Your task to perform on an android device: uninstall "Microsoft Authenticator" Image 0: 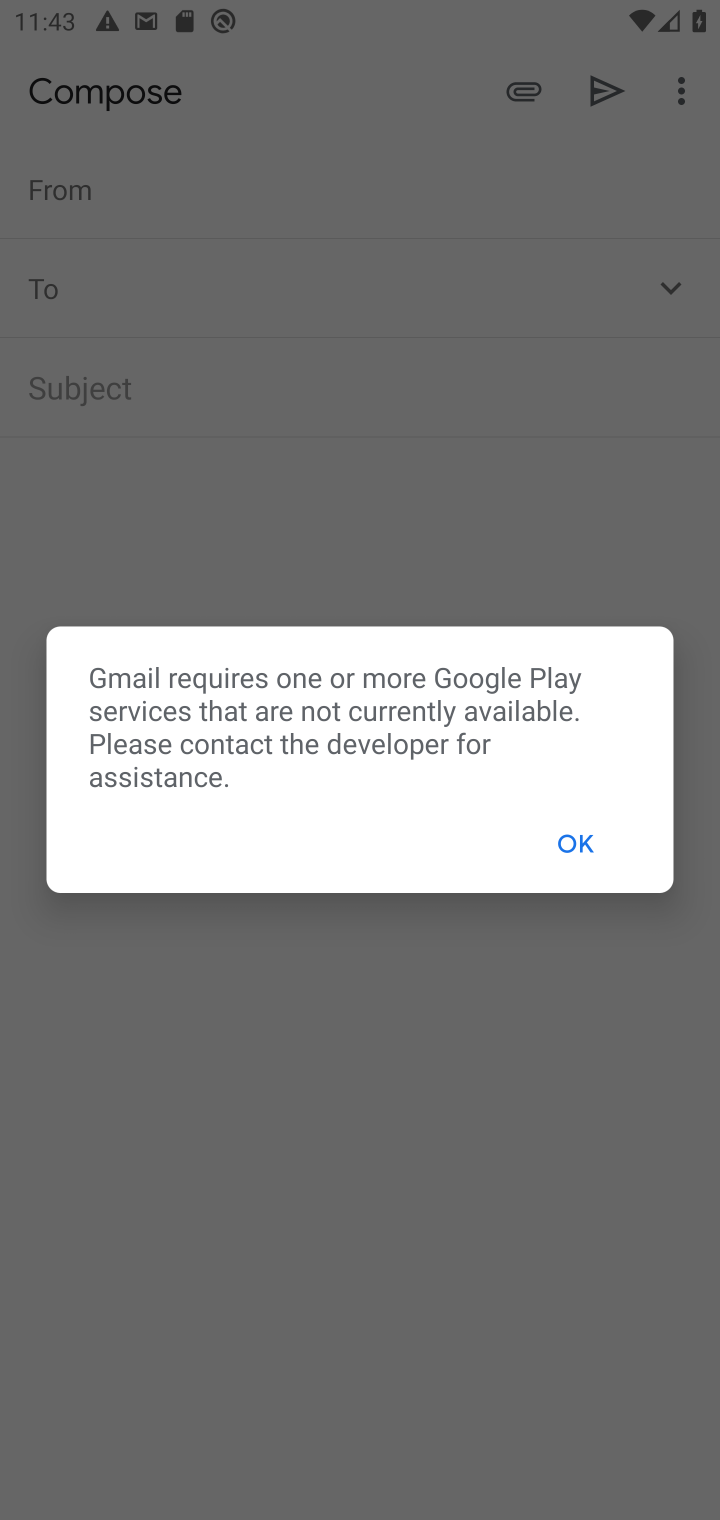
Step 0: press home button
Your task to perform on an android device: uninstall "Microsoft Authenticator" Image 1: 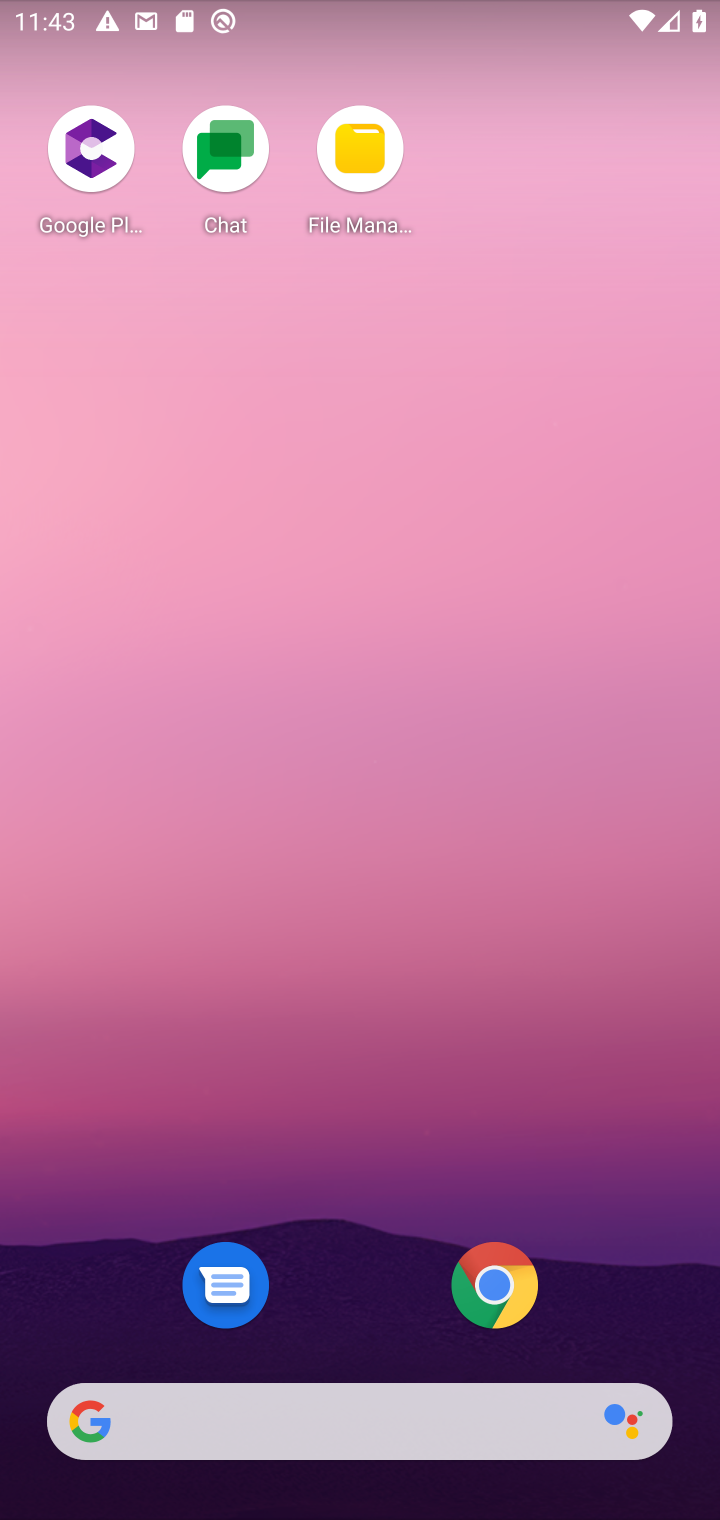
Step 1: press home button
Your task to perform on an android device: uninstall "Microsoft Authenticator" Image 2: 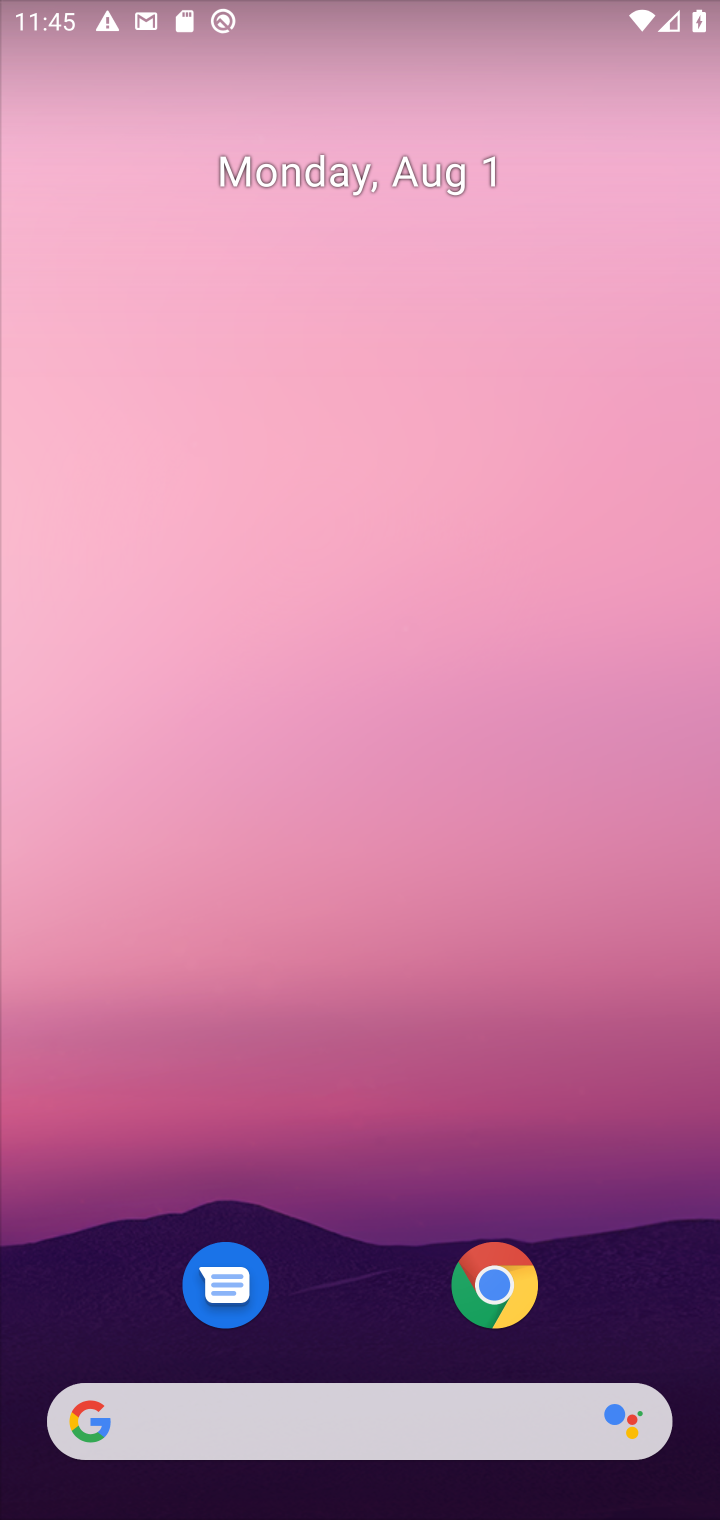
Step 2: drag from (582, 1028) to (469, 27)
Your task to perform on an android device: uninstall "Microsoft Authenticator" Image 3: 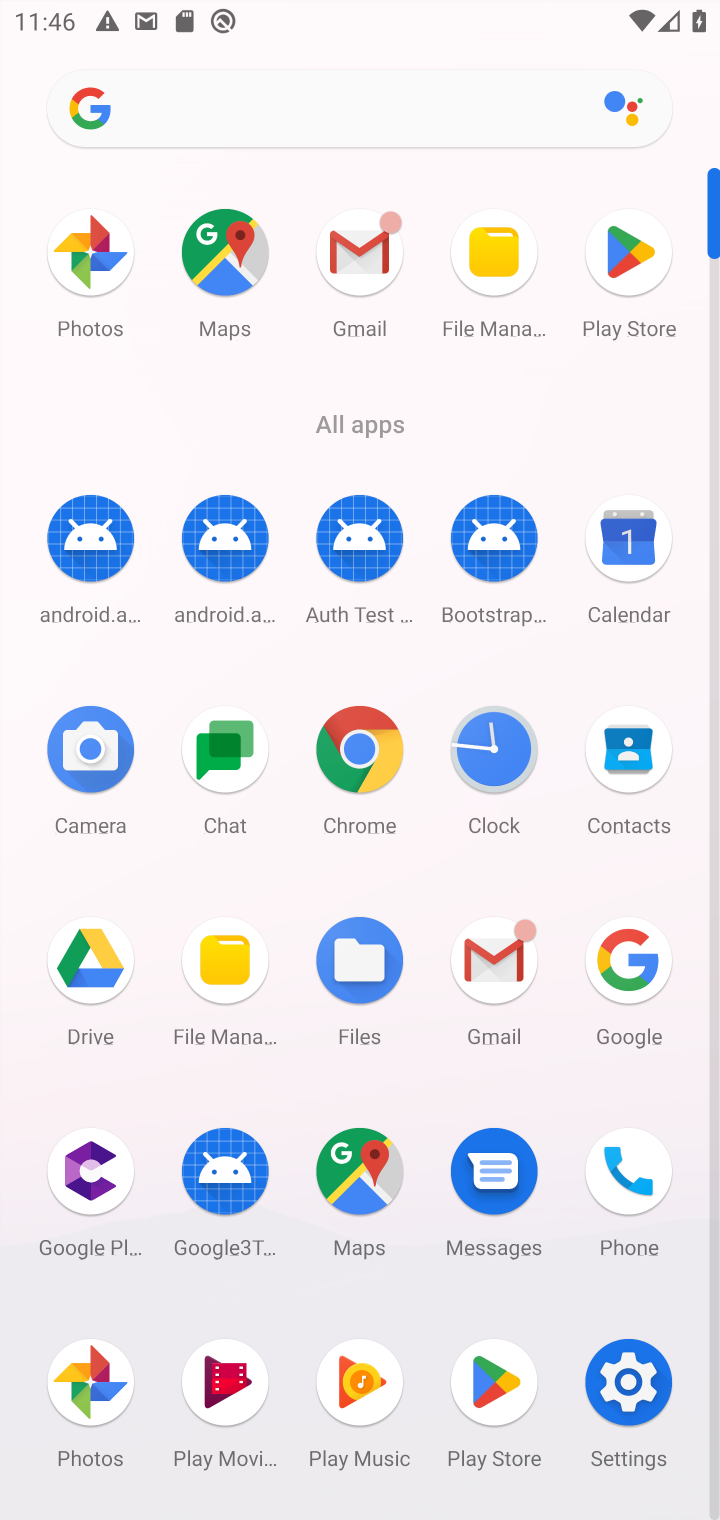
Step 3: click (454, 1417)
Your task to perform on an android device: uninstall "Microsoft Authenticator" Image 4: 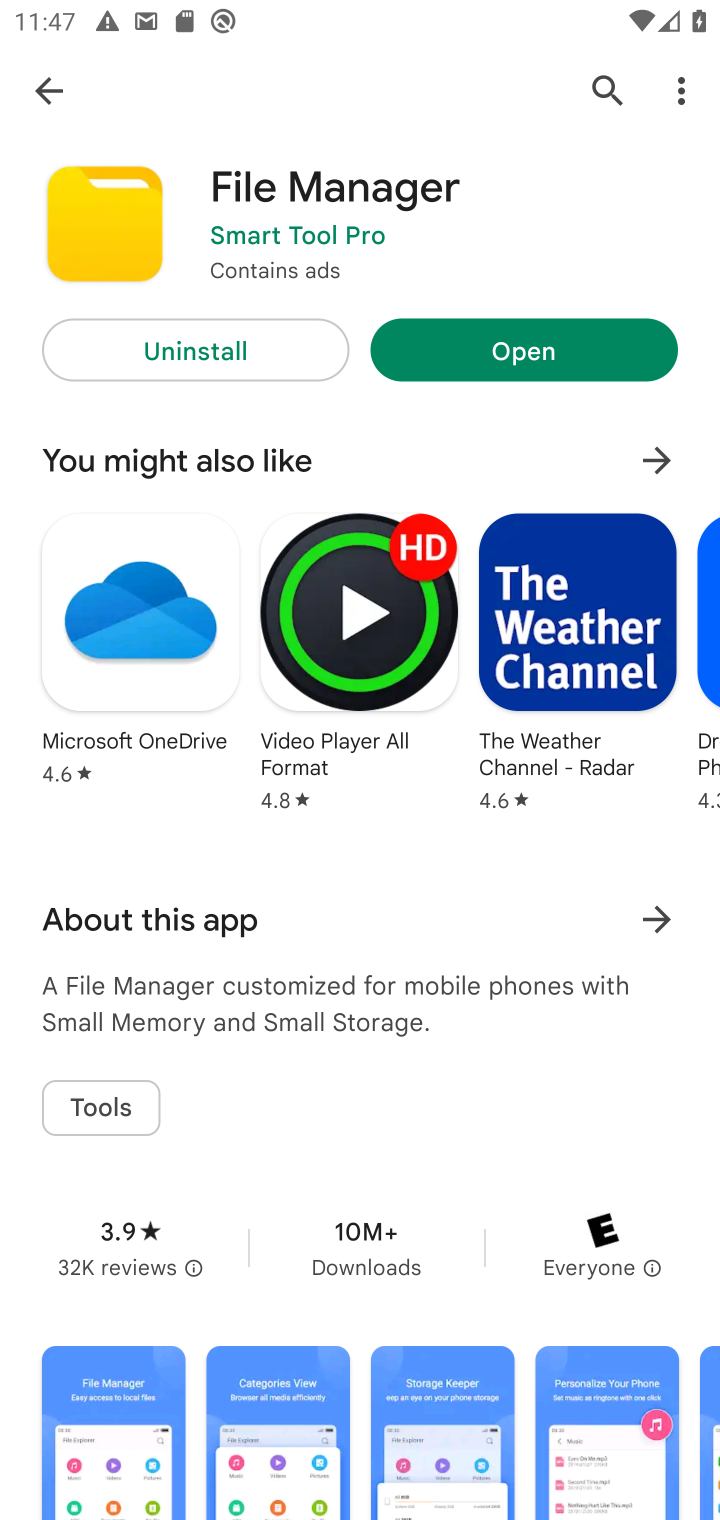
Step 4: click (627, 93)
Your task to perform on an android device: uninstall "Microsoft Authenticator" Image 5: 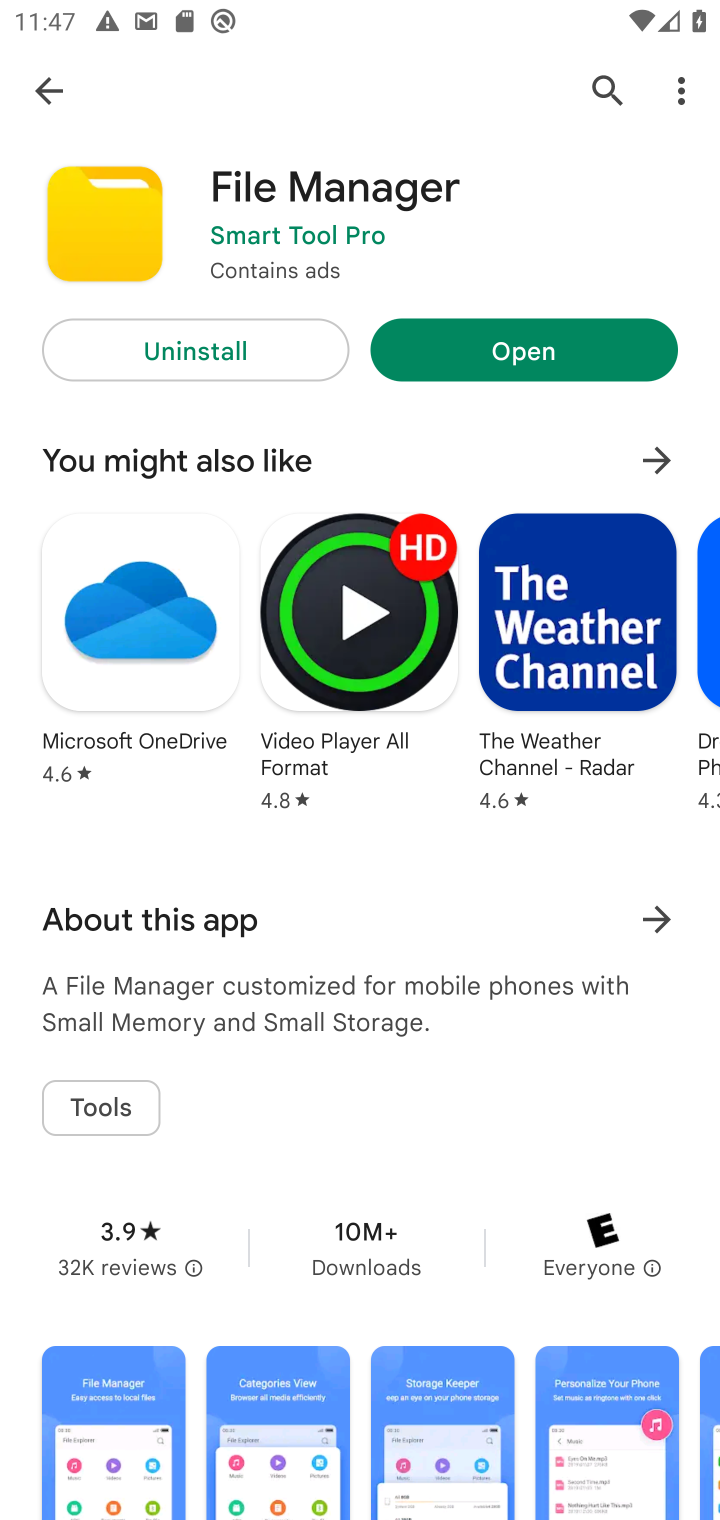
Step 5: click (602, 95)
Your task to perform on an android device: uninstall "Microsoft Authenticator" Image 6: 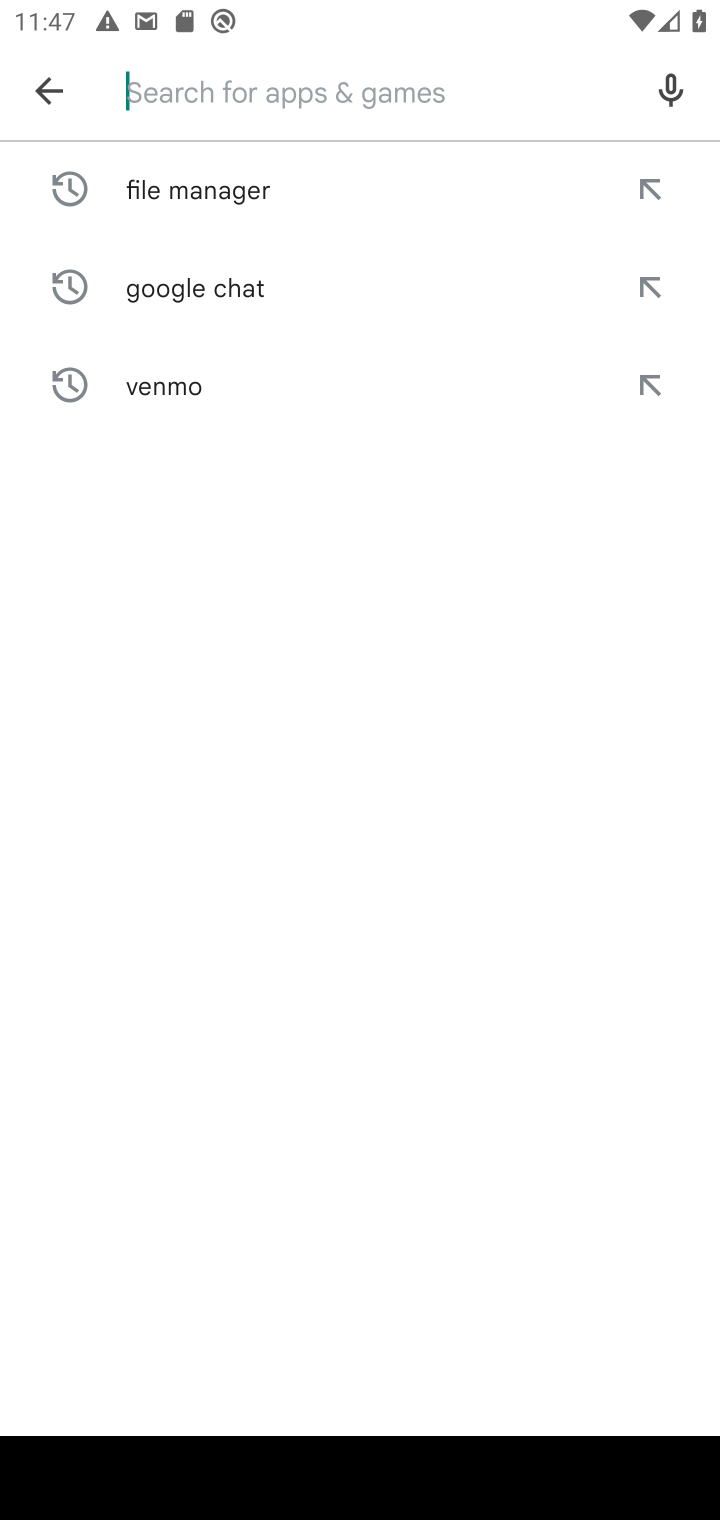
Step 6: type "Microsoft Authenticator""
Your task to perform on an android device: uninstall "Microsoft Authenticator" Image 7: 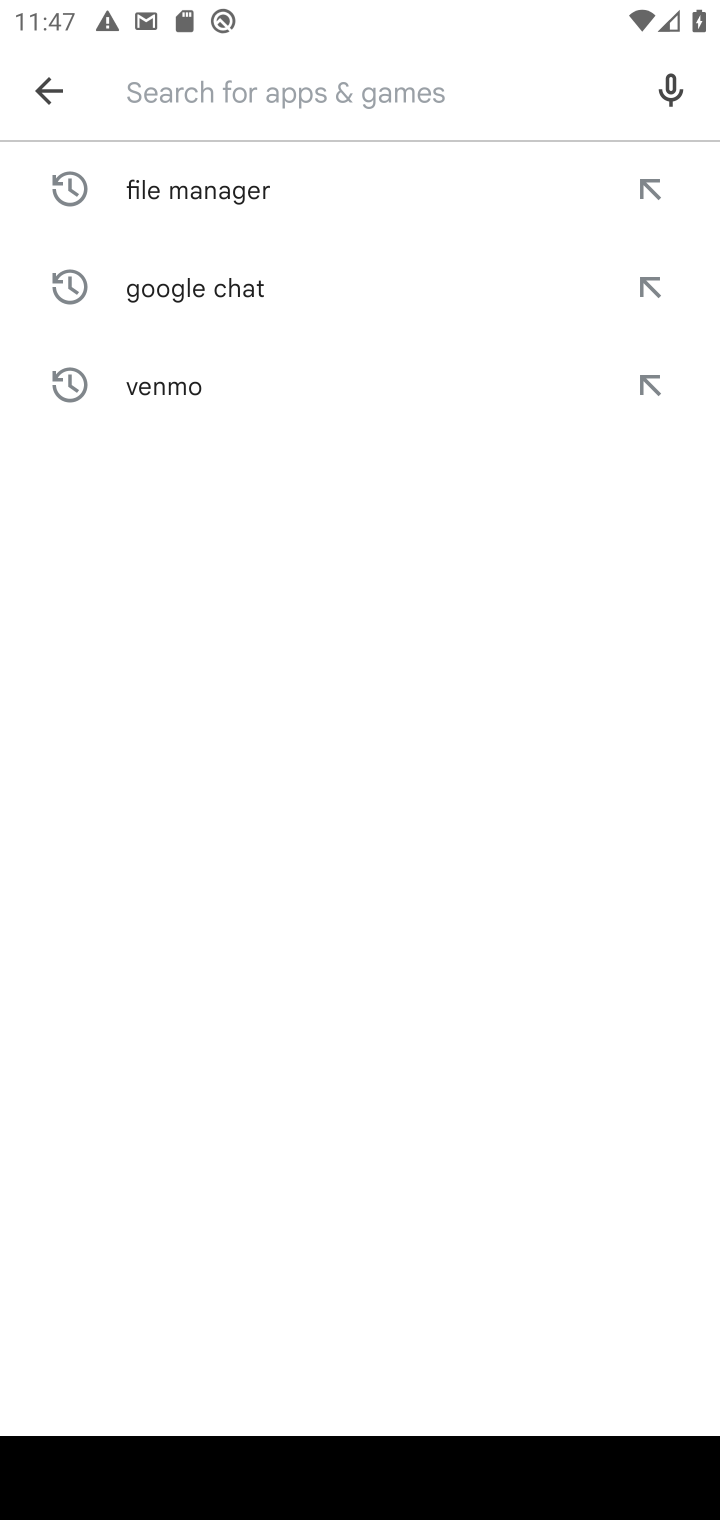
Step 7: type ""
Your task to perform on an android device: uninstall "Microsoft Authenticator" Image 8: 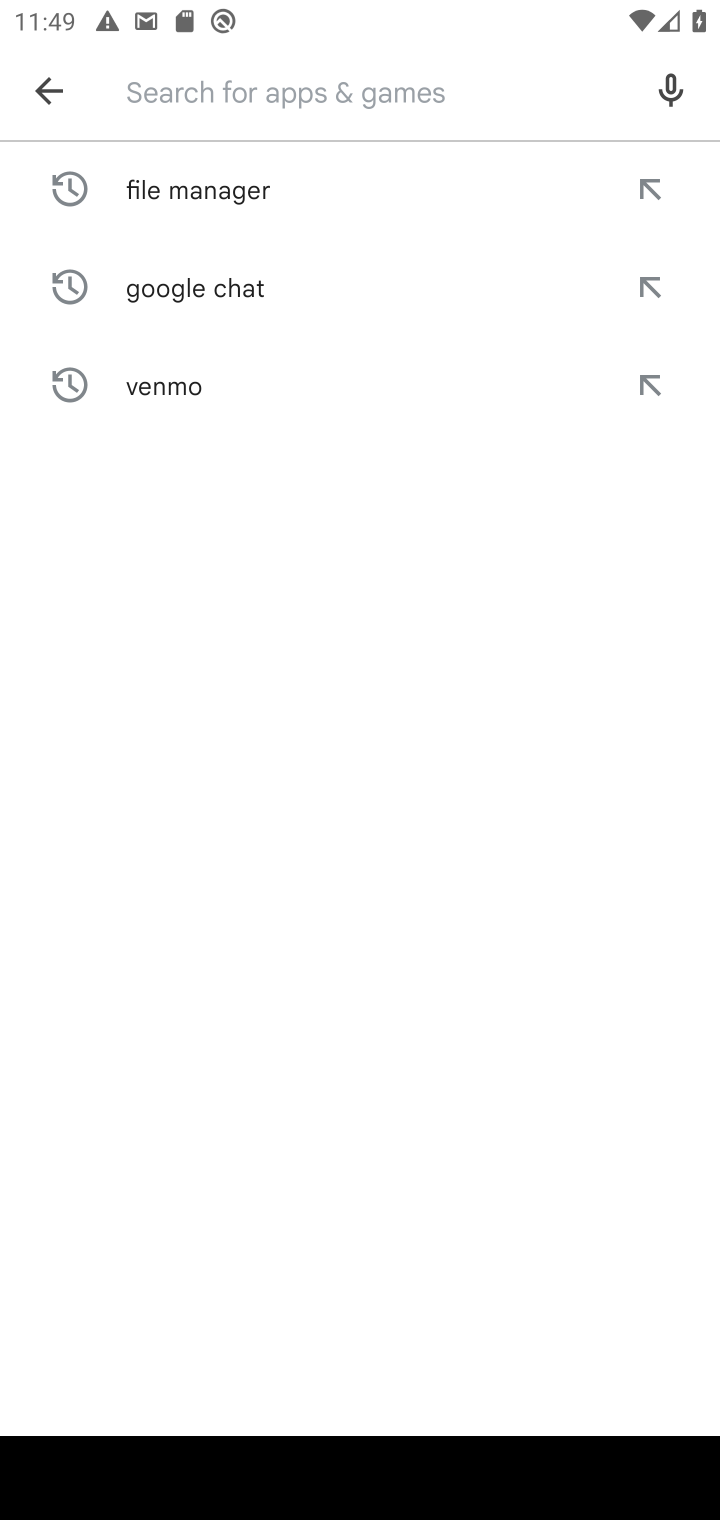
Step 8: type "Microsoft Authenticator"
Your task to perform on an android device: uninstall "Microsoft Authenticator" Image 9: 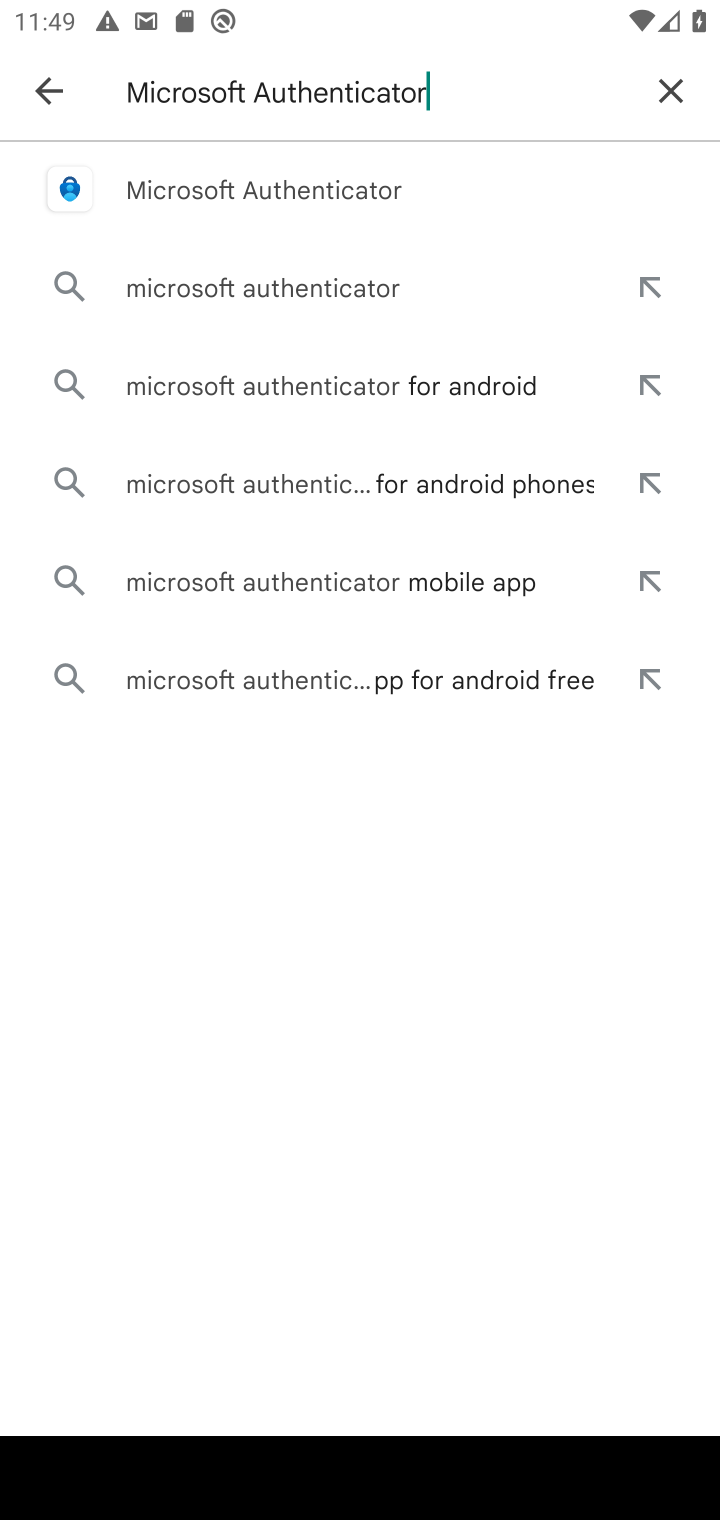
Step 9: click (200, 174)
Your task to perform on an android device: uninstall "Microsoft Authenticator" Image 10: 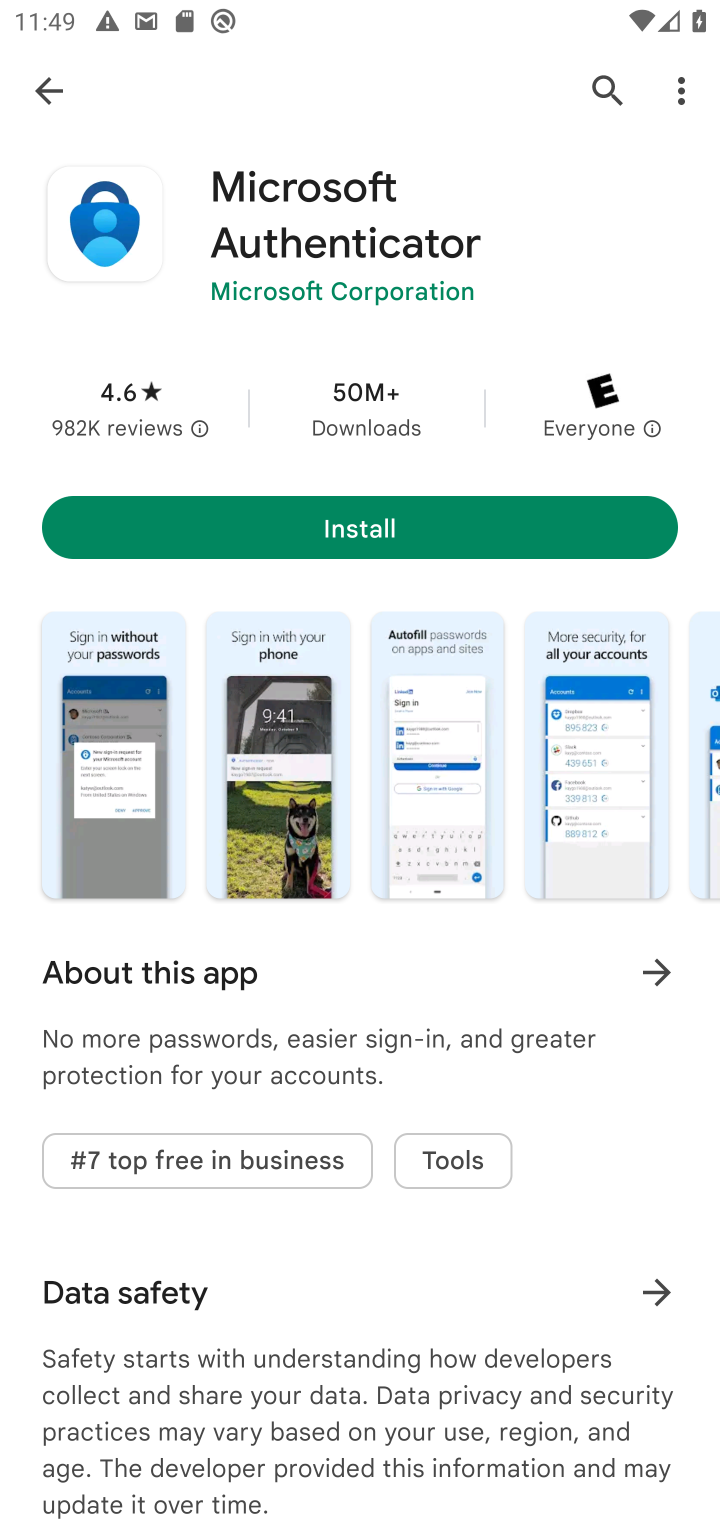
Step 10: task complete